Your task to perform on an android device: check android version Image 0: 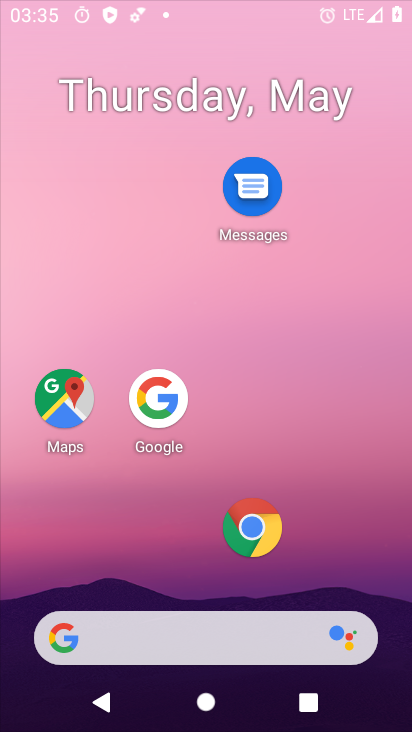
Step 0: click (266, 74)
Your task to perform on an android device: check android version Image 1: 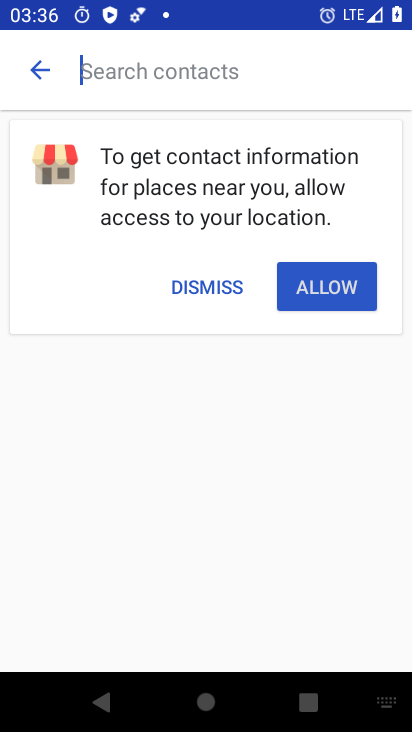
Step 1: press home button
Your task to perform on an android device: check android version Image 2: 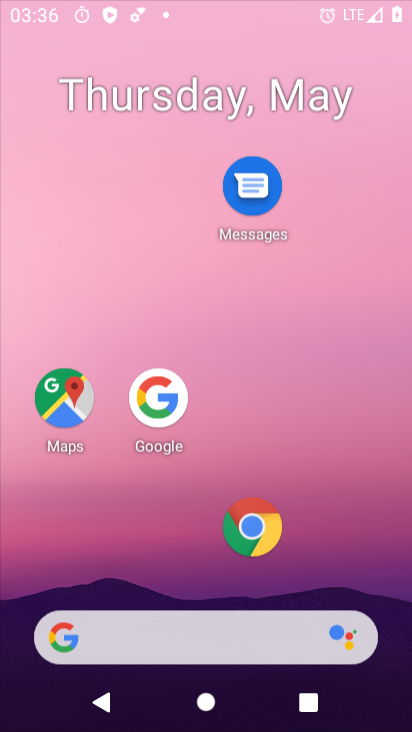
Step 2: drag from (154, 623) to (330, 54)
Your task to perform on an android device: check android version Image 3: 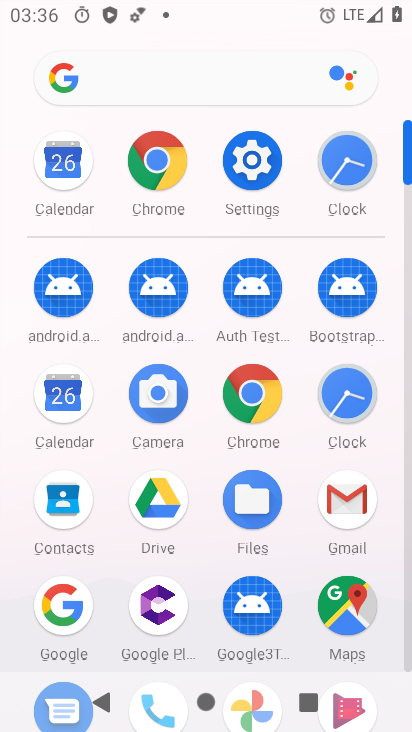
Step 3: click (243, 158)
Your task to perform on an android device: check android version Image 4: 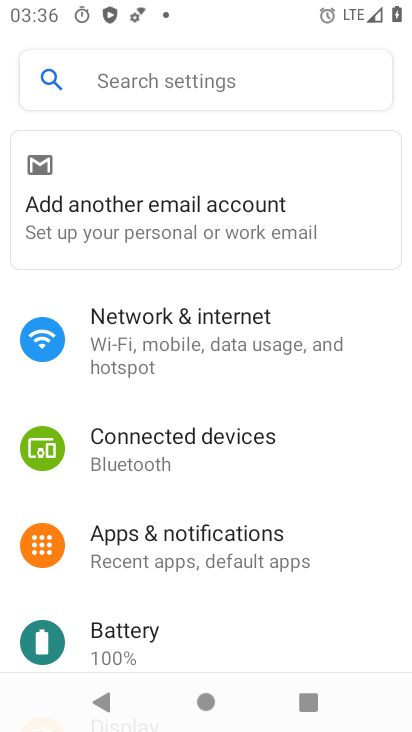
Step 4: drag from (199, 598) to (230, 94)
Your task to perform on an android device: check android version Image 5: 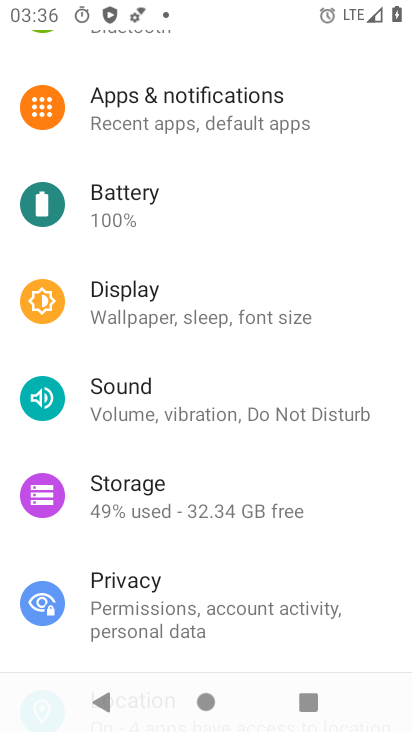
Step 5: drag from (191, 534) to (208, 33)
Your task to perform on an android device: check android version Image 6: 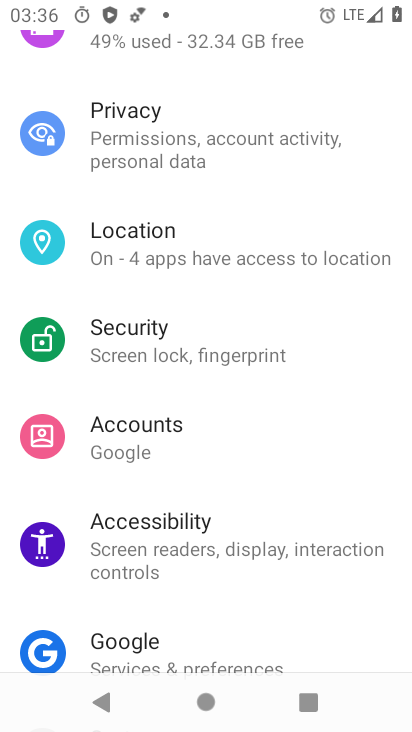
Step 6: drag from (198, 607) to (253, 83)
Your task to perform on an android device: check android version Image 7: 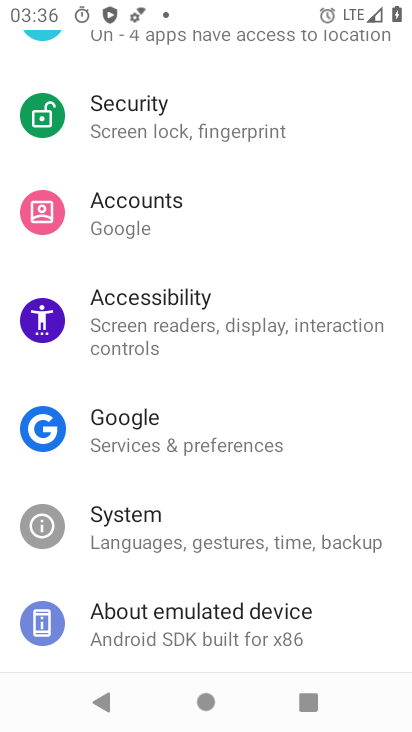
Step 7: click (176, 653)
Your task to perform on an android device: check android version Image 8: 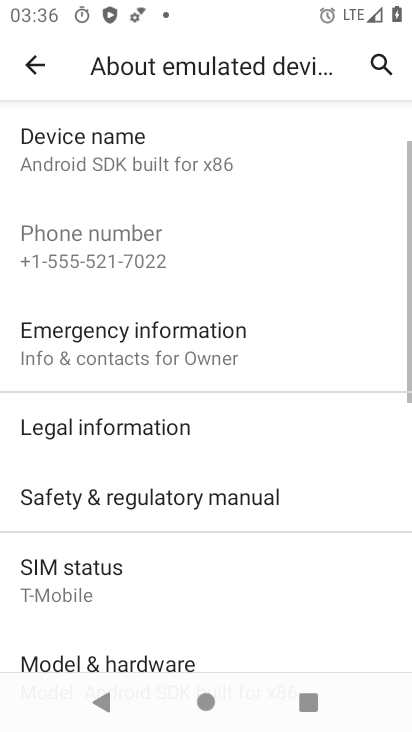
Step 8: drag from (209, 472) to (248, 147)
Your task to perform on an android device: check android version Image 9: 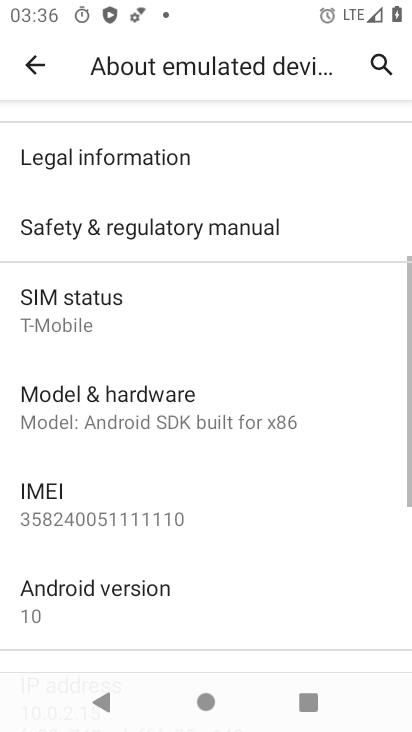
Step 9: click (134, 579)
Your task to perform on an android device: check android version Image 10: 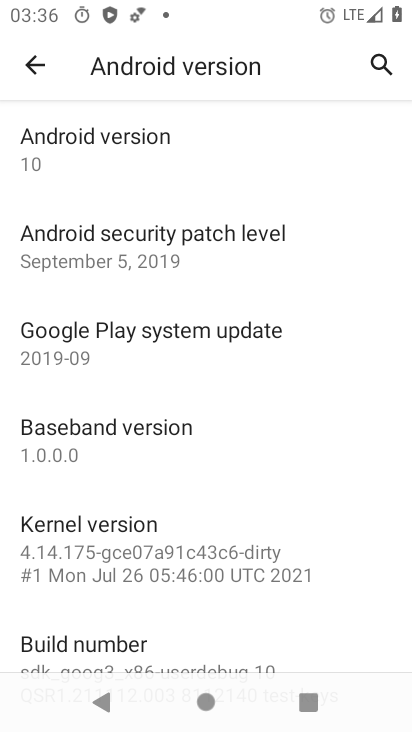
Step 10: click (203, 151)
Your task to perform on an android device: check android version Image 11: 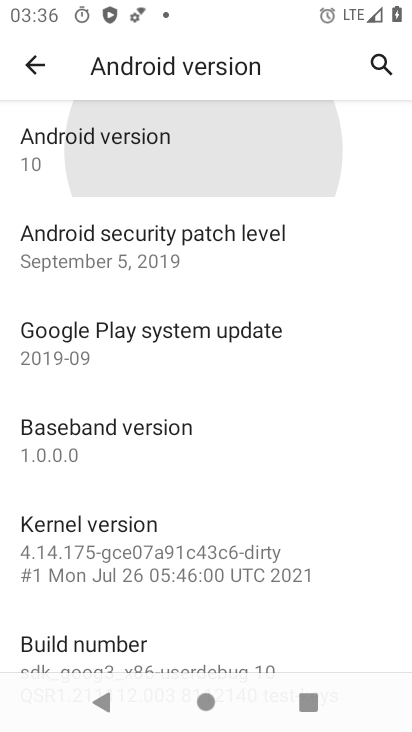
Step 11: task complete